Your task to perform on an android device: Open my contact list Image 0: 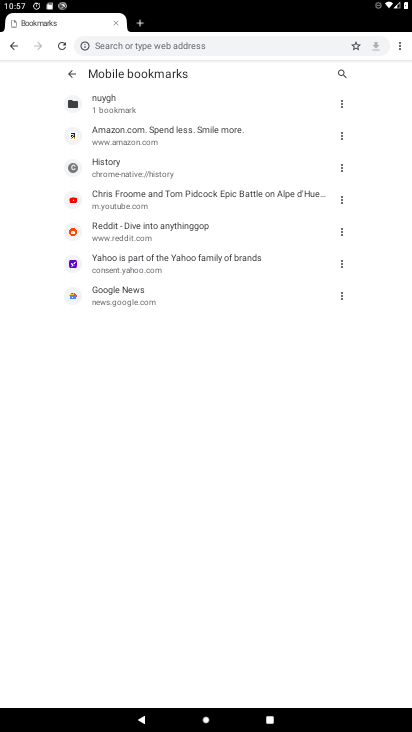
Step 0: press home button
Your task to perform on an android device: Open my contact list Image 1: 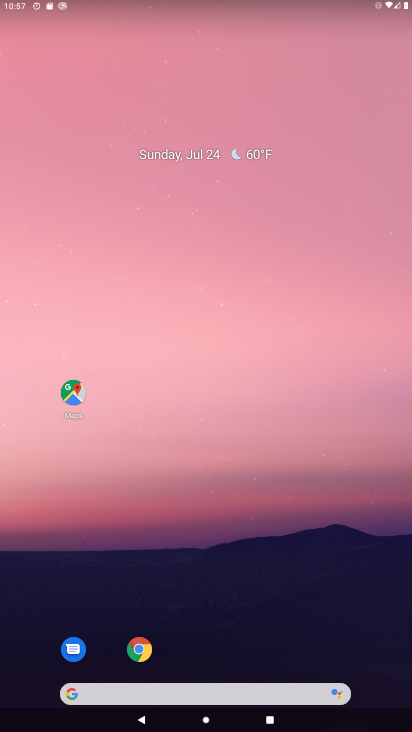
Step 1: drag from (229, 446) to (229, 18)
Your task to perform on an android device: Open my contact list Image 2: 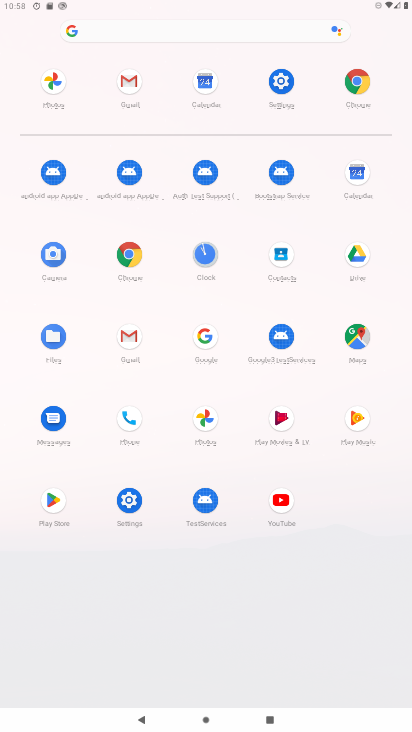
Step 2: click (289, 253)
Your task to perform on an android device: Open my contact list Image 3: 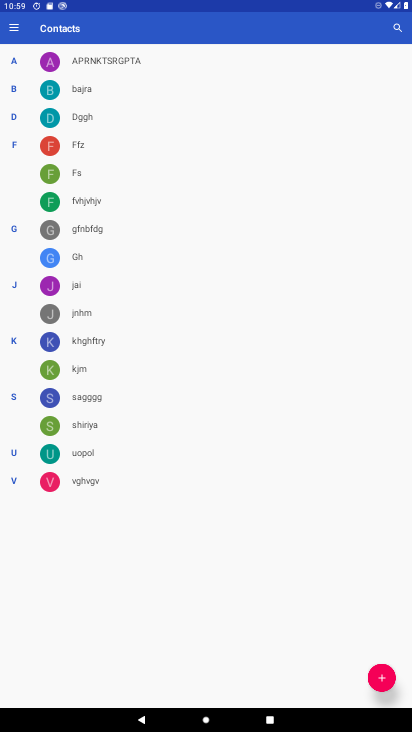
Step 3: task complete